Your task to perform on an android device: Go to Google maps Image 0: 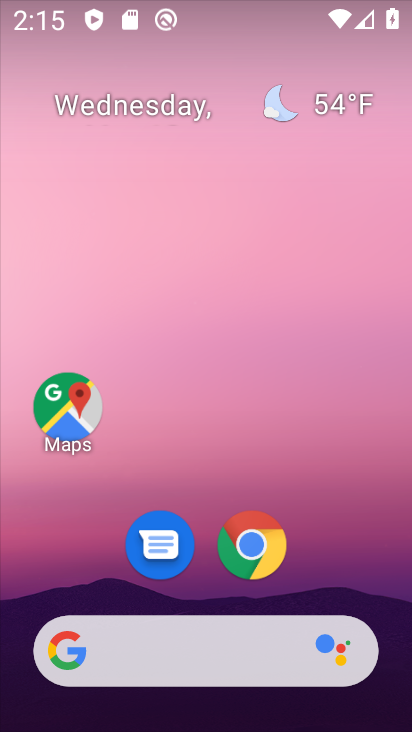
Step 0: drag from (329, 499) to (291, 77)
Your task to perform on an android device: Go to Google maps Image 1: 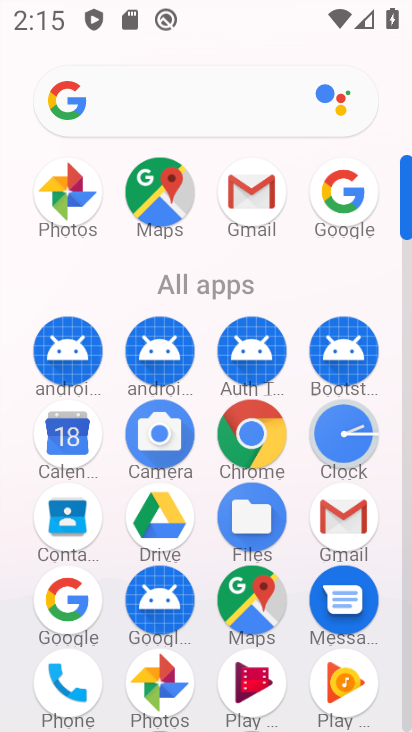
Step 1: click (257, 608)
Your task to perform on an android device: Go to Google maps Image 2: 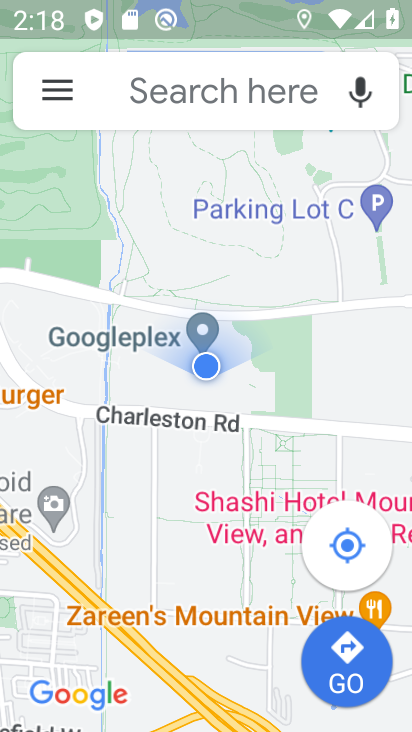
Step 2: task complete